Your task to perform on an android device: Go to eBay Image 0: 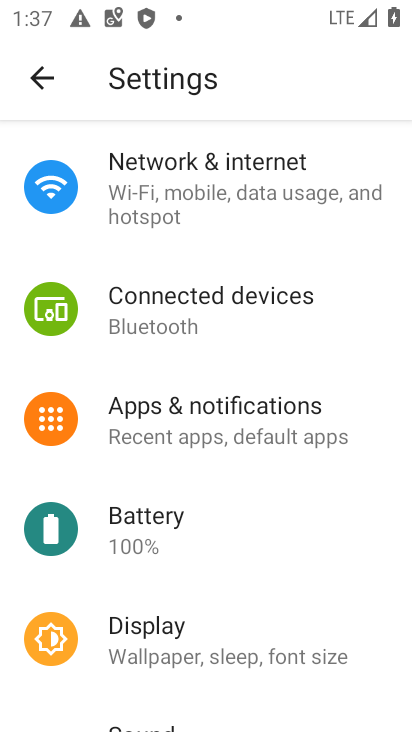
Step 0: press home button
Your task to perform on an android device: Go to eBay Image 1: 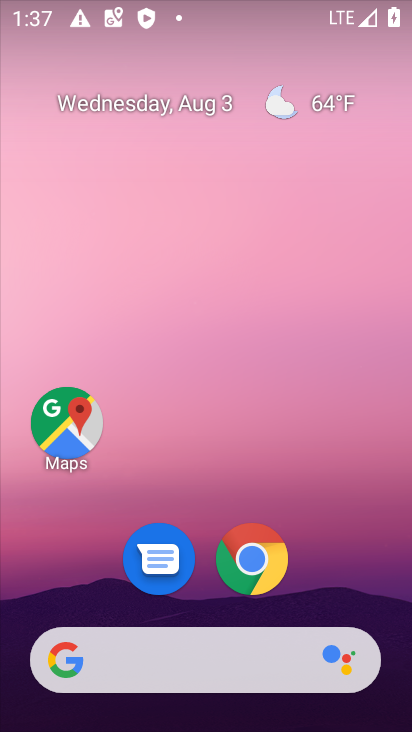
Step 1: click (251, 567)
Your task to perform on an android device: Go to eBay Image 2: 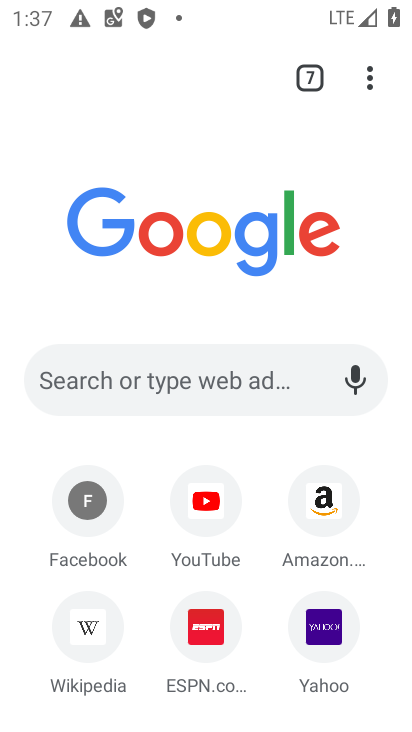
Step 2: click (230, 381)
Your task to perform on an android device: Go to eBay Image 3: 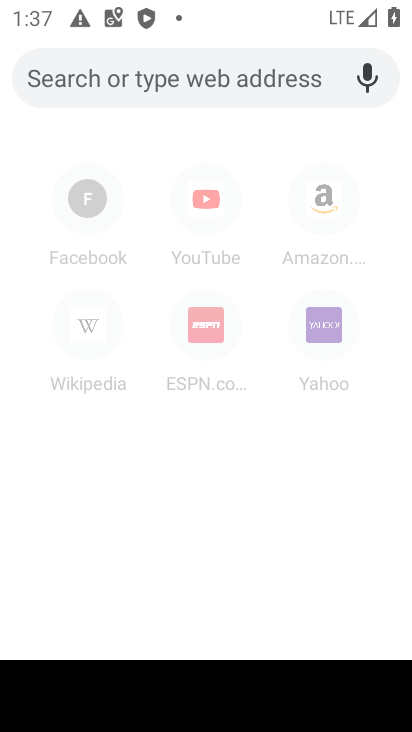
Step 3: type "Ebay"
Your task to perform on an android device: Go to eBay Image 4: 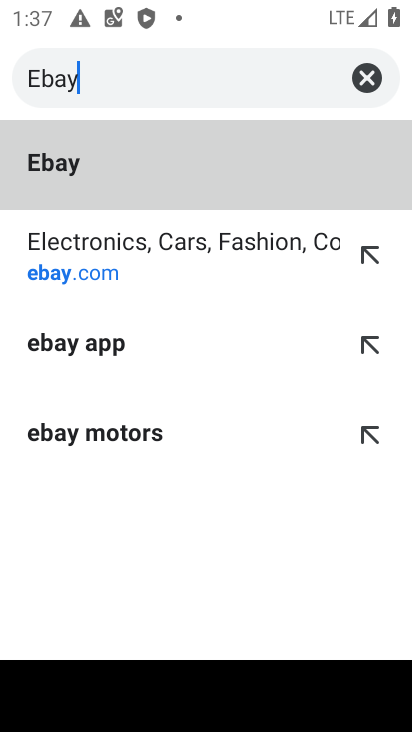
Step 4: click (47, 164)
Your task to perform on an android device: Go to eBay Image 5: 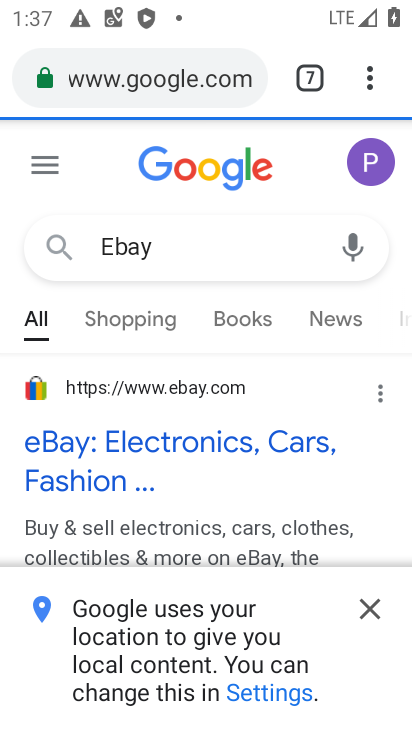
Step 5: click (149, 442)
Your task to perform on an android device: Go to eBay Image 6: 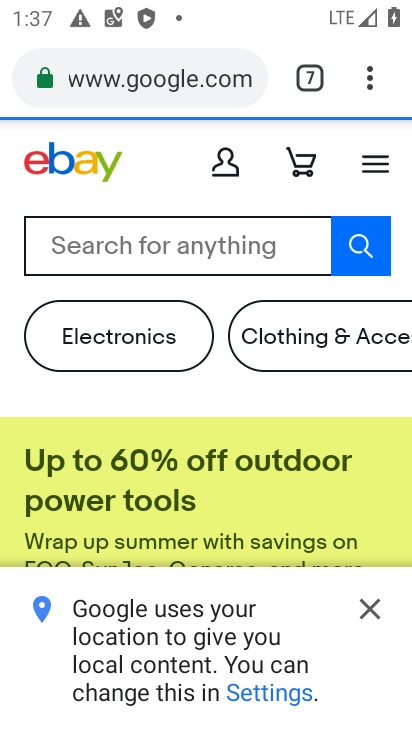
Step 6: task complete